Your task to perform on an android device: check the backup settings in the google photos Image 0: 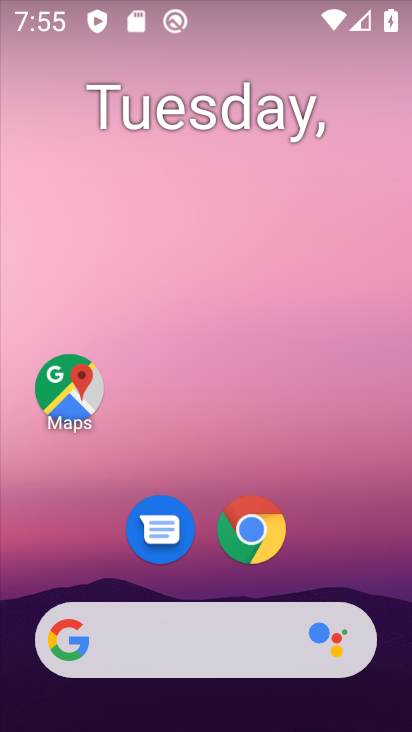
Step 0: drag from (191, 570) to (406, 305)
Your task to perform on an android device: check the backup settings in the google photos Image 1: 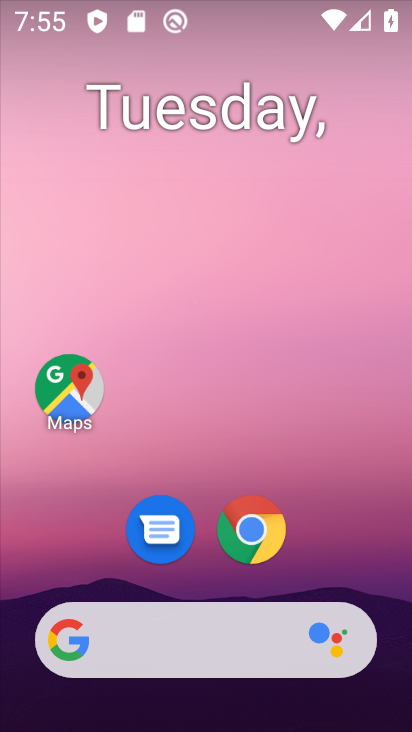
Step 1: drag from (220, 552) to (125, 309)
Your task to perform on an android device: check the backup settings in the google photos Image 2: 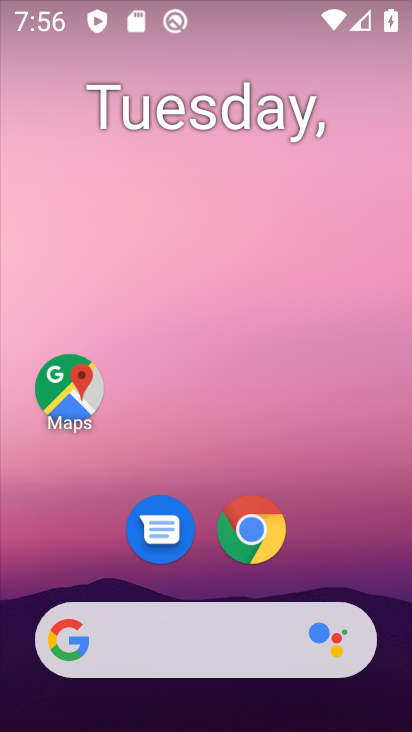
Step 2: click (78, 205)
Your task to perform on an android device: check the backup settings in the google photos Image 3: 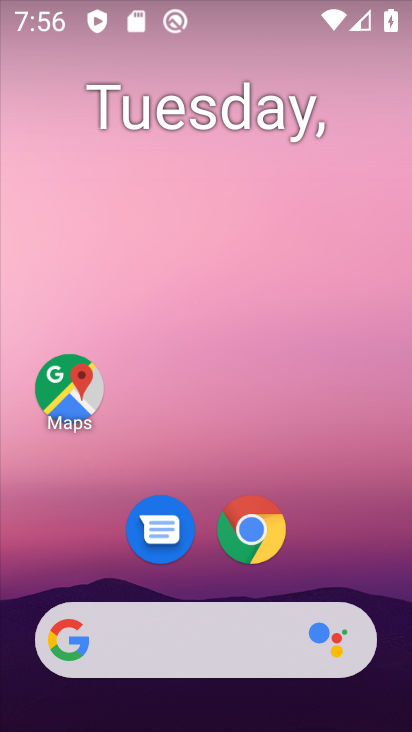
Step 3: drag from (183, 589) to (217, 126)
Your task to perform on an android device: check the backup settings in the google photos Image 4: 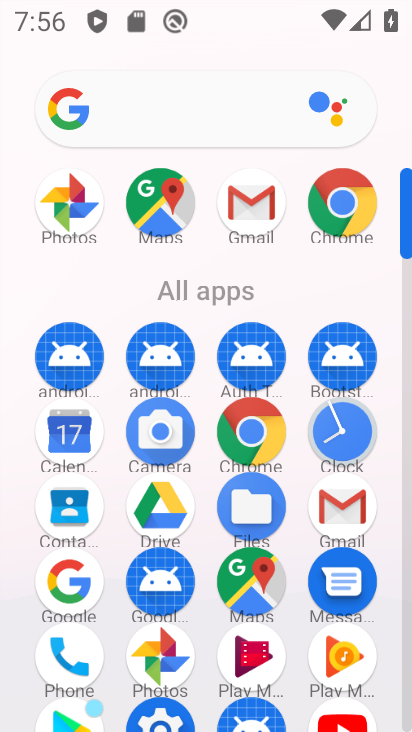
Step 4: click (158, 661)
Your task to perform on an android device: check the backup settings in the google photos Image 5: 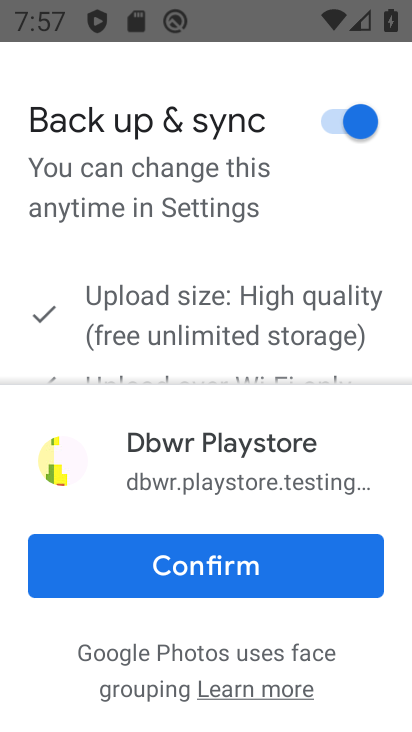
Step 5: click (250, 574)
Your task to perform on an android device: check the backup settings in the google photos Image 6: 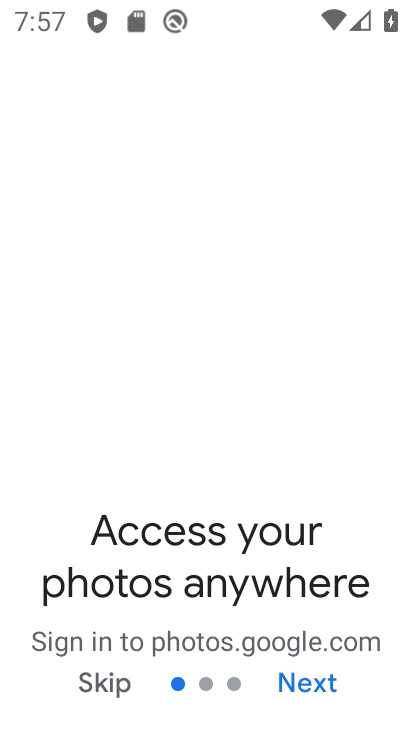
Step 6: click (239, 669)
Your task to perform on an android device: check the backup settings in the google photos Image 7: 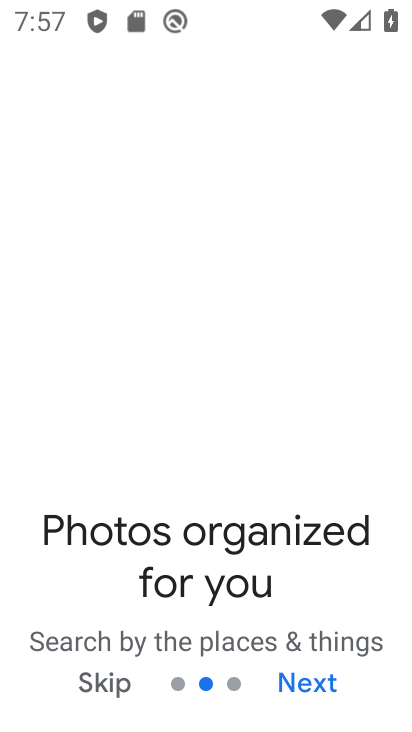
Step 7: click (295, 677)
Your task to perform on an android device: check the backup settings in the google photos Image 8: 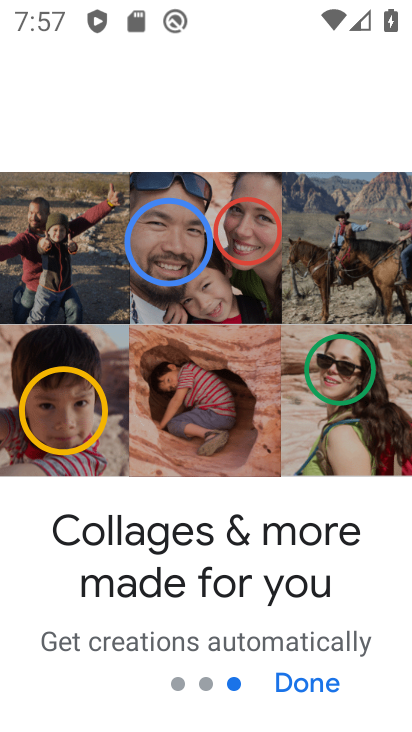
Step 8: click (310, 675)
Your task to perform on an android device: check the backup settings in the google photos Image 9: 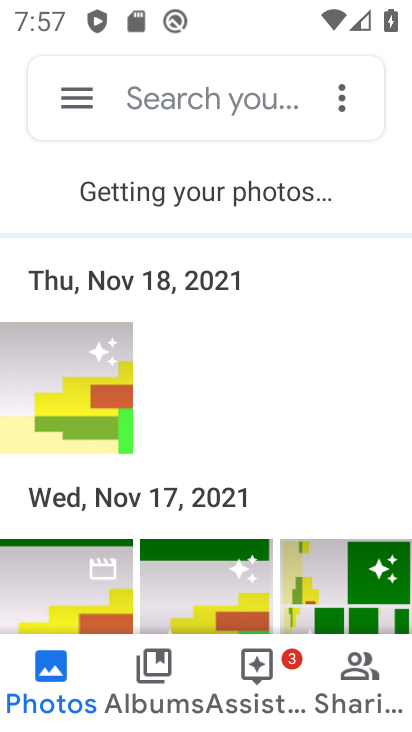
Step 9: click (66, 96)
Your task to perform on an android device: check the backup settings in the google photos Image 10: 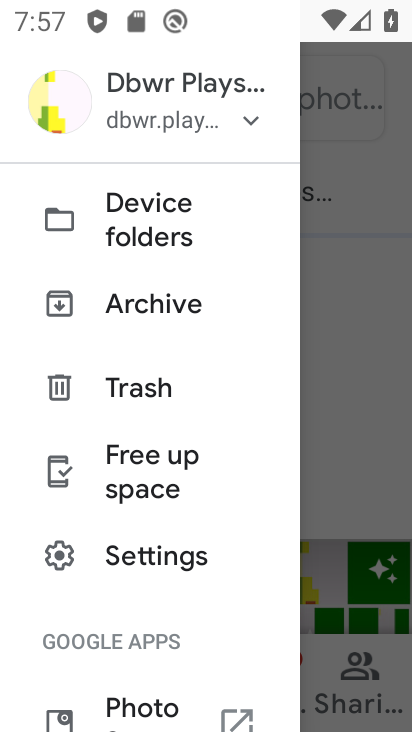
Step 10: click (145, 553)
Your task to perform on an android device: check the backup settings in the google photos Image 11: 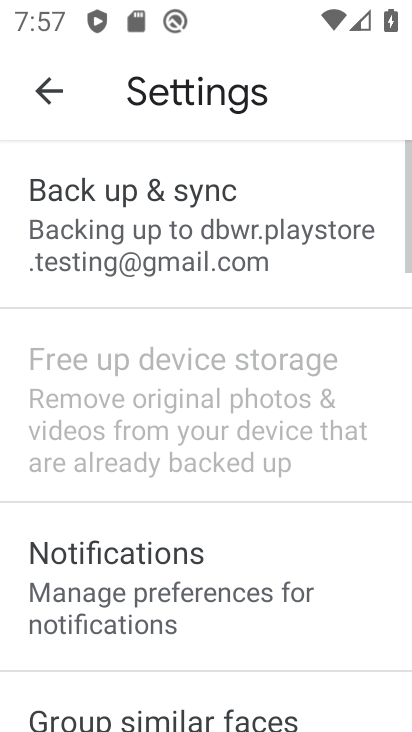
Step 11: click (143, 238)
Your task to perform on an android device: check the backup settings in the google photos Image 12: 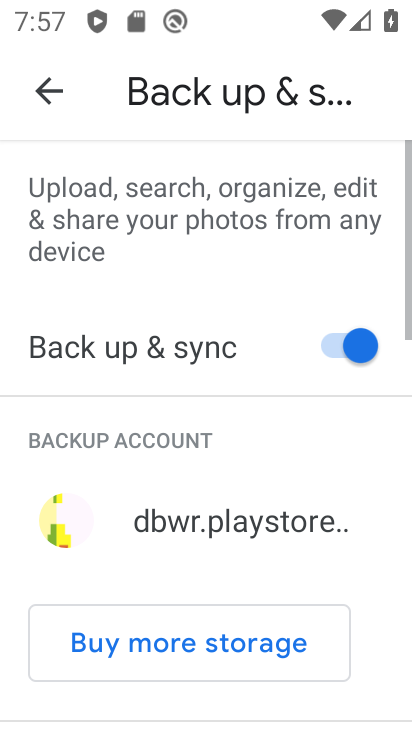
Step 12: task complete